Your task to perform on an android device: turn off wifi Image 0: 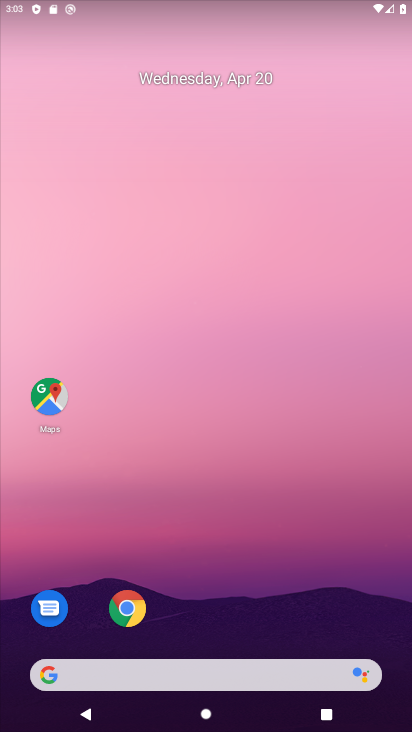
Step 0: drag from (207, 632) to (172, 2)
Your task to perform on an android device: turn off wifi Image 1: 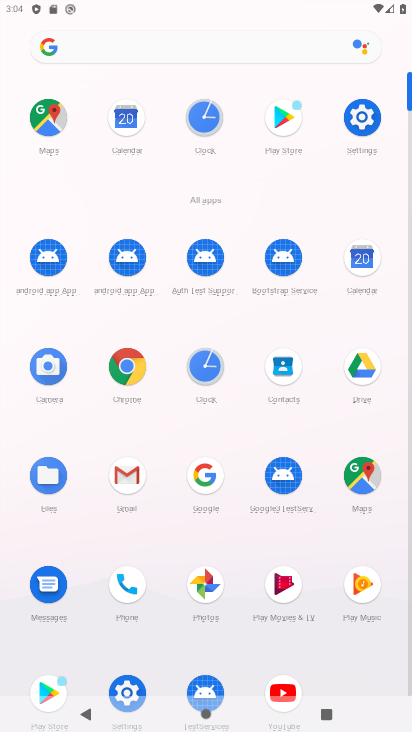
Step 1: click (356, 107)
Your task to perform on an android device: turn off wifi Image 2: 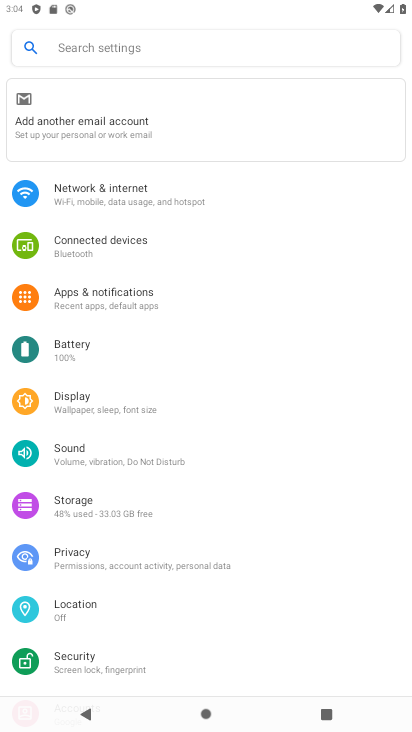
Step 2: click (99, 207)
Your task to perform on an android device: turn off wifi Image 3: 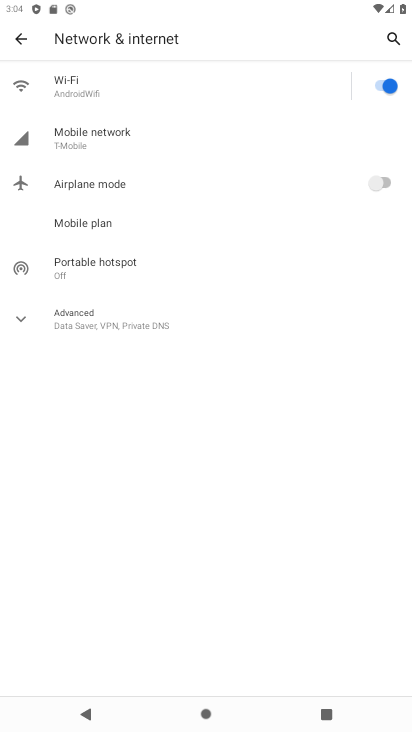
Step 3: click (382, 76)
Your task to perform on an android device: turn off wifi Image 4: 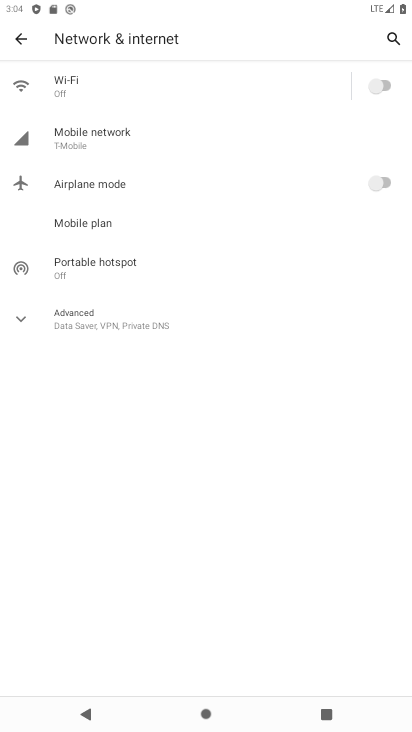
Step 4: task complete